Your task to perform on an android device: turn on notifications settings in the gmail app Image 0: 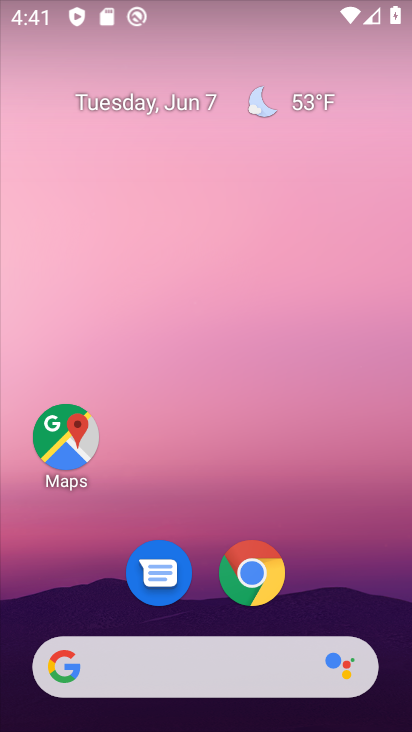
Step 0: drag from (216, 573) to (207, 188)
Your task to perform on an android device: turn on notifications settings in the gmail app Image 1: 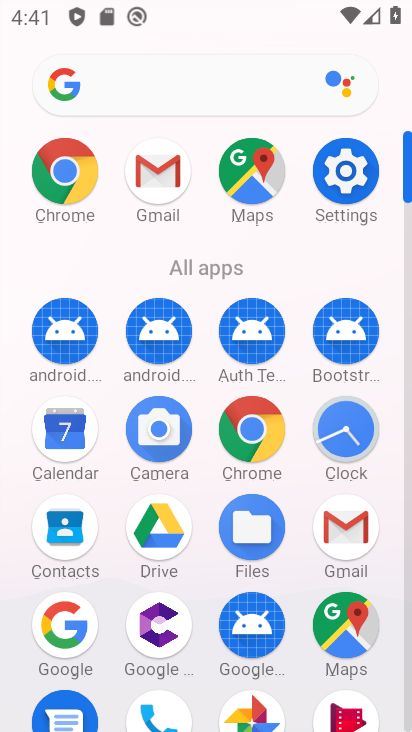
Step 1: click (355, 544)
Your task to perform on an android device: turn on notifications settings in the gmail app Image 2: 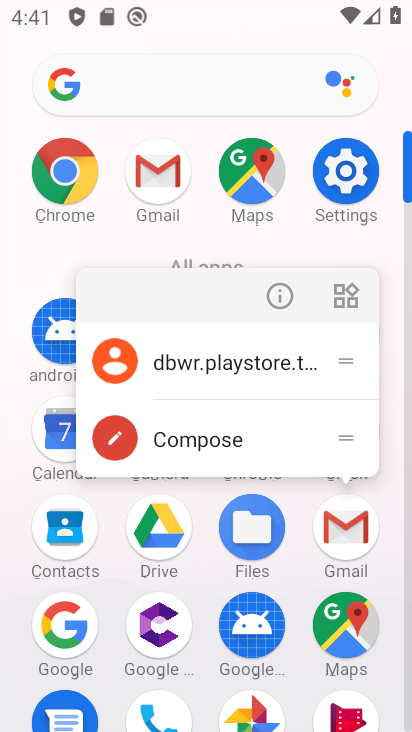
Step 2: click (335, 526)
Your task to perform on an android device: turn on notifications settings in the gmail app Image 3: 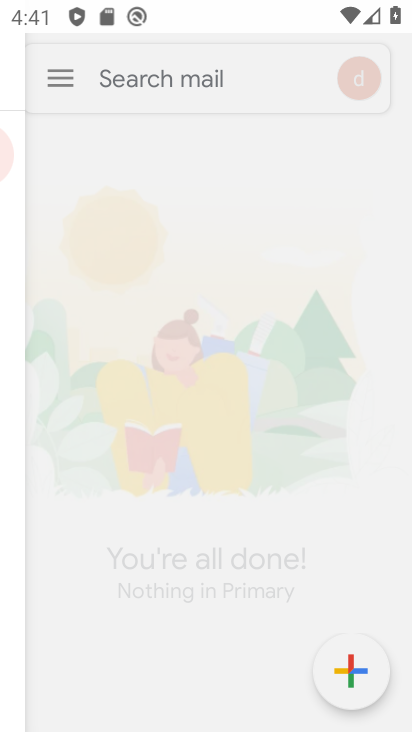
Step 3: drag from (99, 622) to (126, 185)
Your task to perform on an android device: turn on notifications settings in the gmail app Image 4: 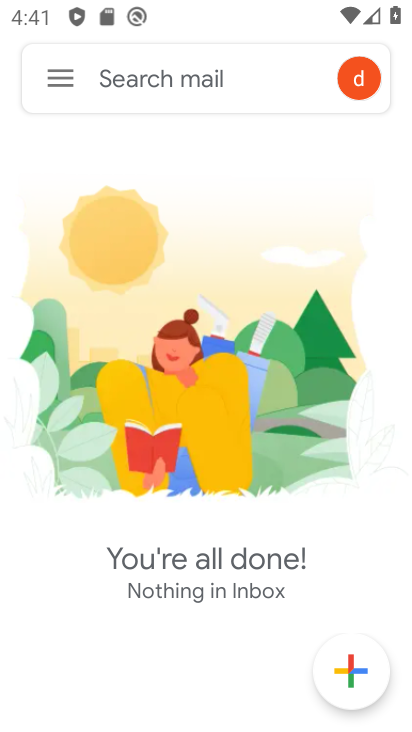
Step 4: click (50, 71)
Your task to perform on an android device: turn on notifications settings in the gmail app Image 5: 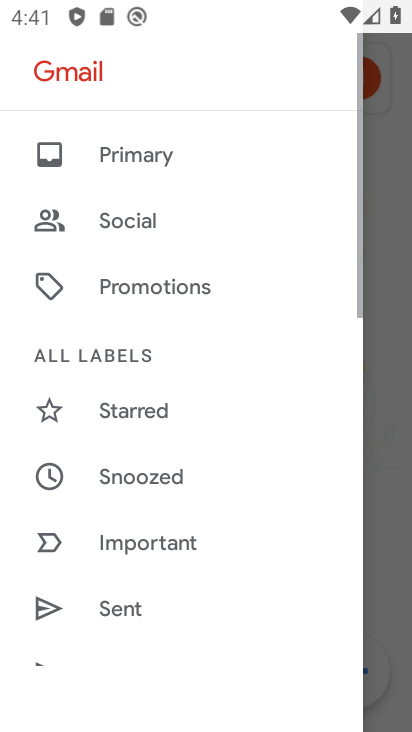
Step 5: drag from (121, 628) to (133, 167)
Your task to perform on an android device: turn on notifications settings in the gmail app Image 6: 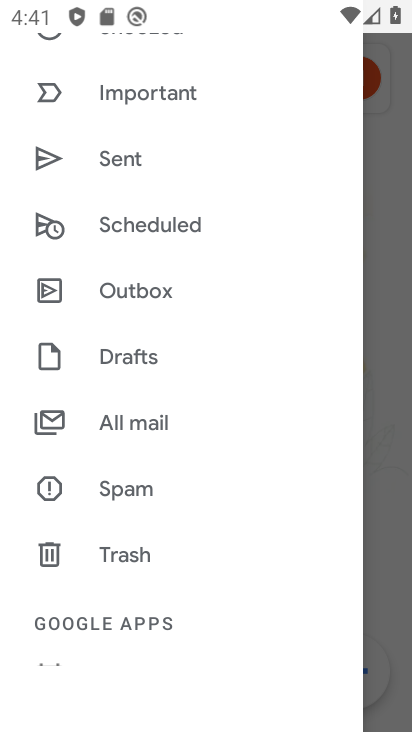
Step 6: drag from (189, 607) to (239, 114)
Your task to perform on an android device: turn on notifications settings in the gmail app Image 7: 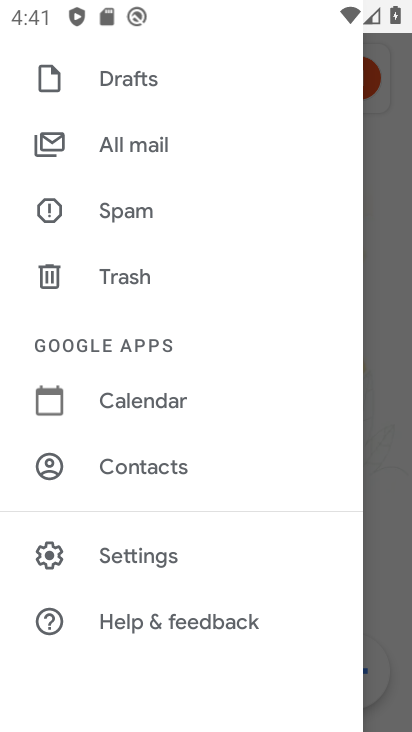
Step 7: click (114, 561)
Your task to perform on an android device: turn on notifications settings in the gmail app Image 8: 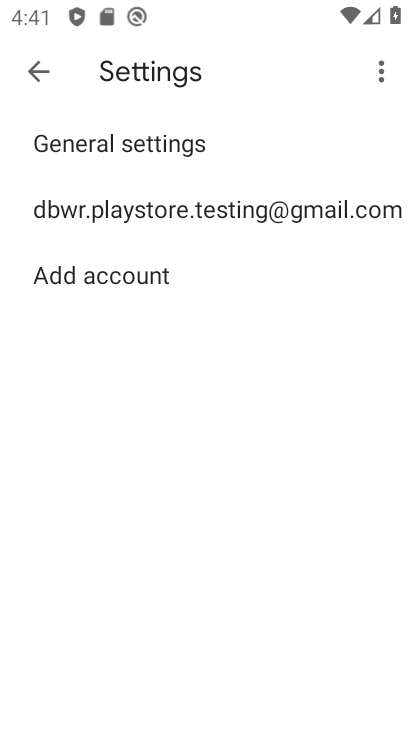
Step 8: click (105, 212)
Your task to perform on an android device: turn on notifications settings in the gmail app Image 9: 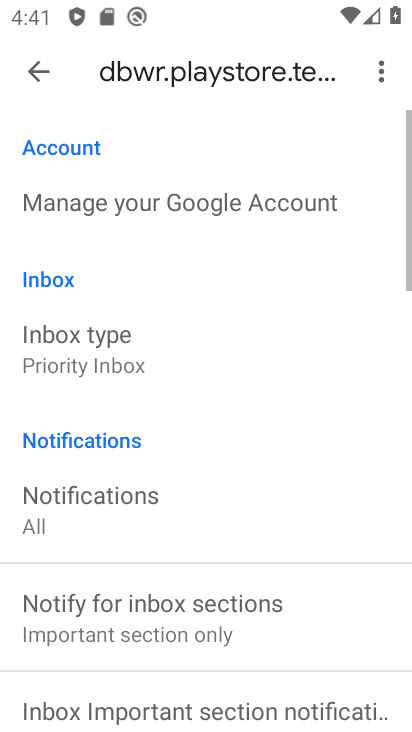
Step 9: click (20, 75)
Your task to perform on an android device: turn on notifications settings in the gmail app Image 10: 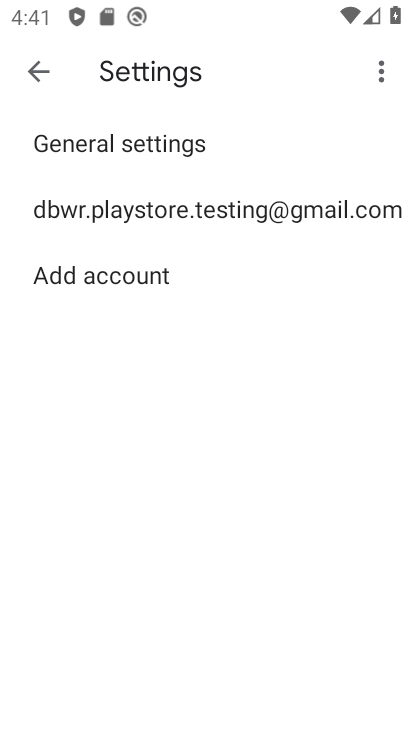
Step 10: click (107, 157)
Your task to perform on an android device: turn on notifications settings in the gmail app Image 11: 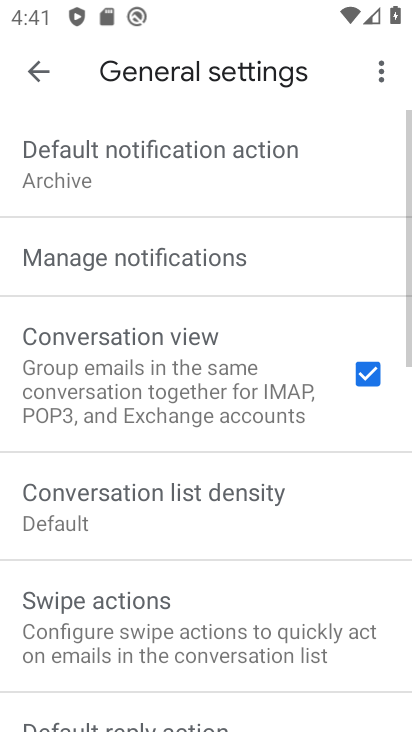
Step 11: click (137, 263)
Your task to perform on an android device: turn on notifications settings in the gmail app Image 12: 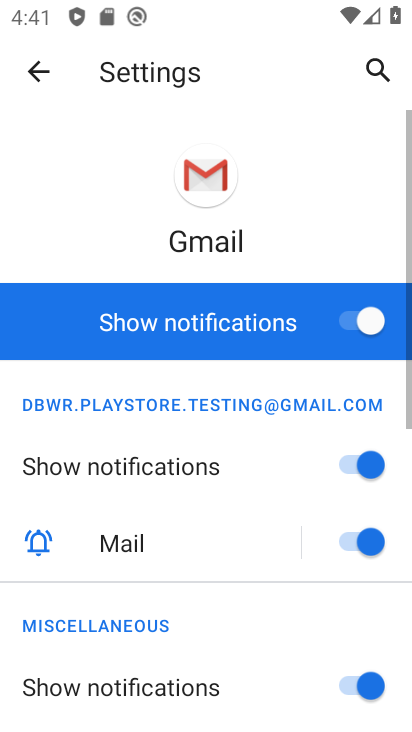
Step 12: click (359, 321)
Your task to perform on an android device: turn on notifications settings in the gmail app Image 13: 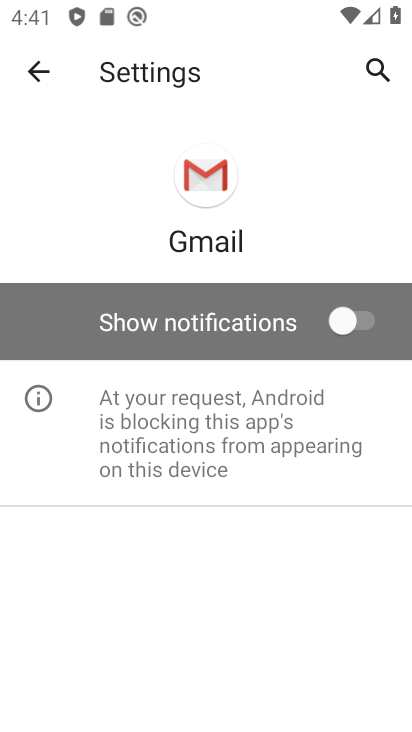
Step 13: click (355, 321)
Your task to perform on an android device: turn on notifications settings in the gmail app Image 14: 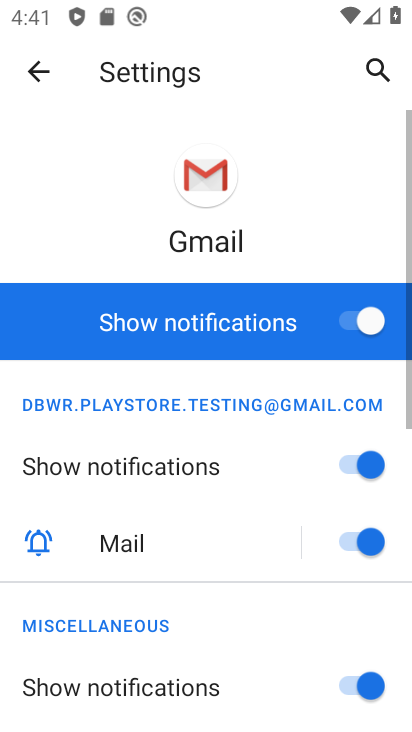
Step 14: task complete